Your task to perform on an android device: check out phone information Image 0: 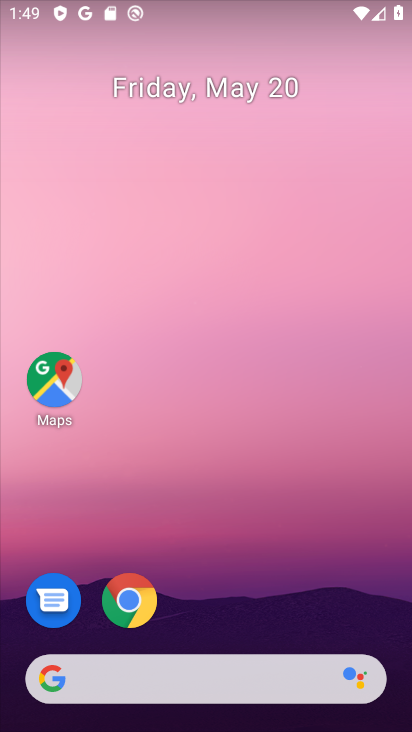
Step 0: drag from (254, 631) to (113, 63)
Your task to perform on an android device: check out phone information Image 1: 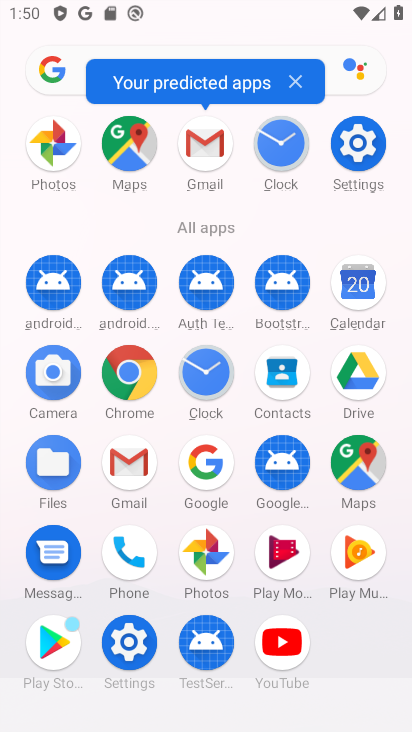
Step 1: click (364, 145)
Your task to perform on an android device: check out phone information Image 2: 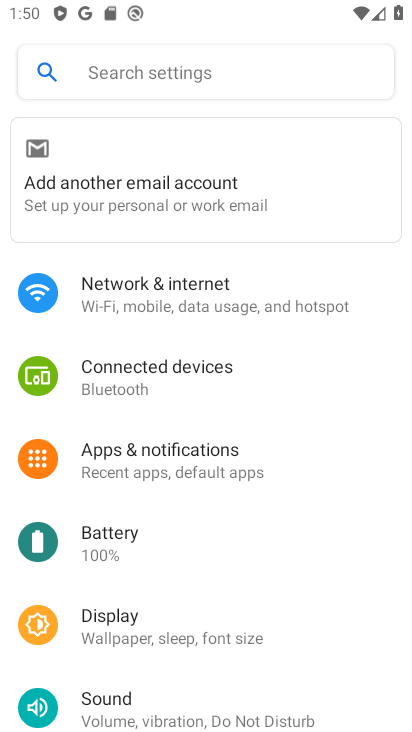
Step 2: drag from (202, 449) to (146, 95)
Your task to perform on an android device: check out phone information Image 3: 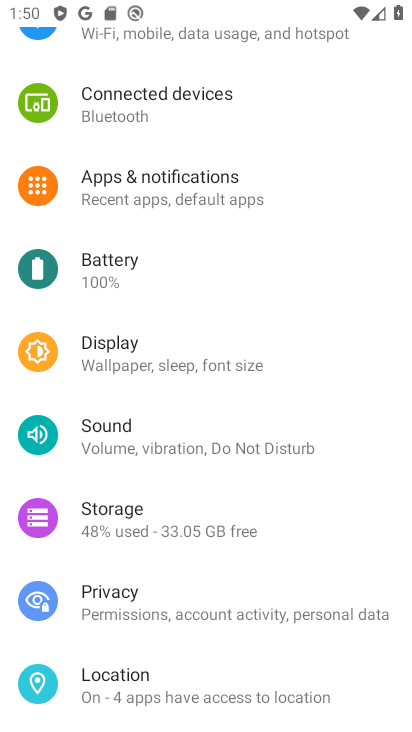
Step 3: drag from (118, 482) to (65, 89)
Your task to perform on an android device: check out phone information Image 4: 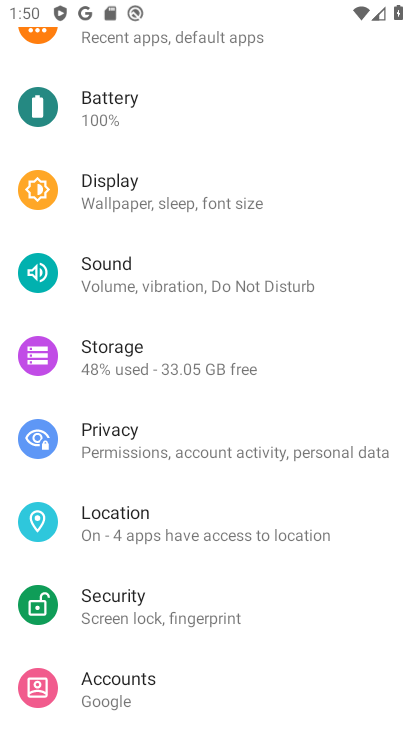
Step 4: drag from (220, 550) to (177, 166)
Your task to perform on an android device: check out phone information Image 5: 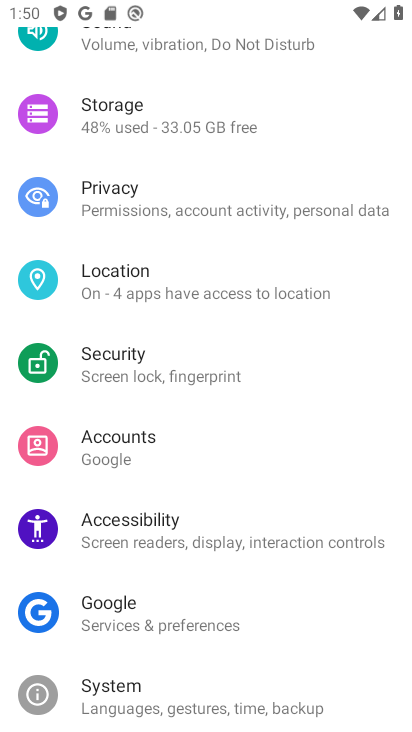
Step 5: drag from (234, 574) to (177, 84)
Your task to perform on an android device: check out phone information Image 6: 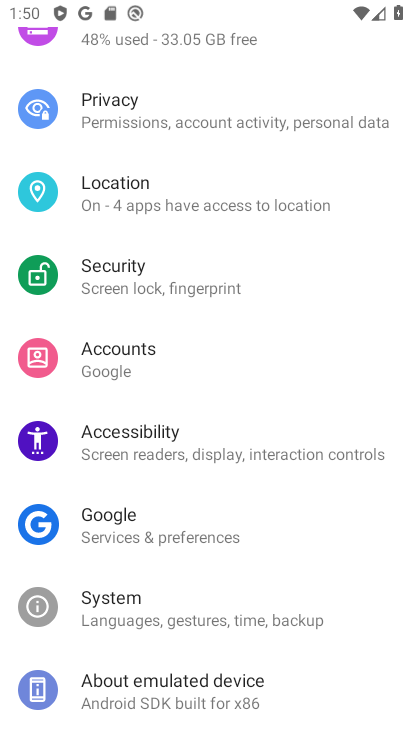
Step 6: click (258, 680)
Your task to perform on an android device: check out phone information Image 7: 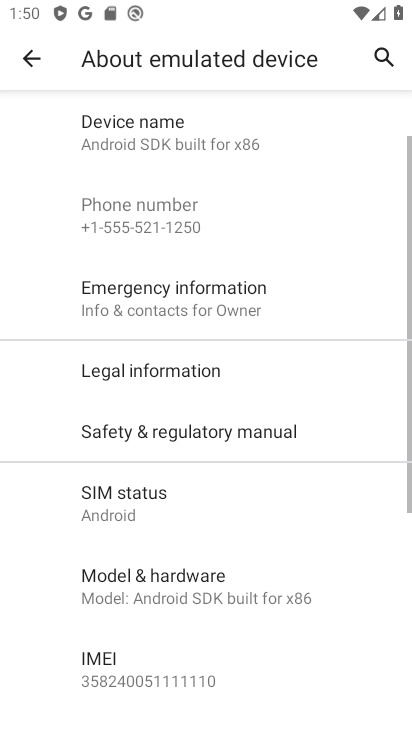
Step 7: task complete